Your task to perform on an android device: Look up the top rated 18v miter saw on Home Depot. Image 0: 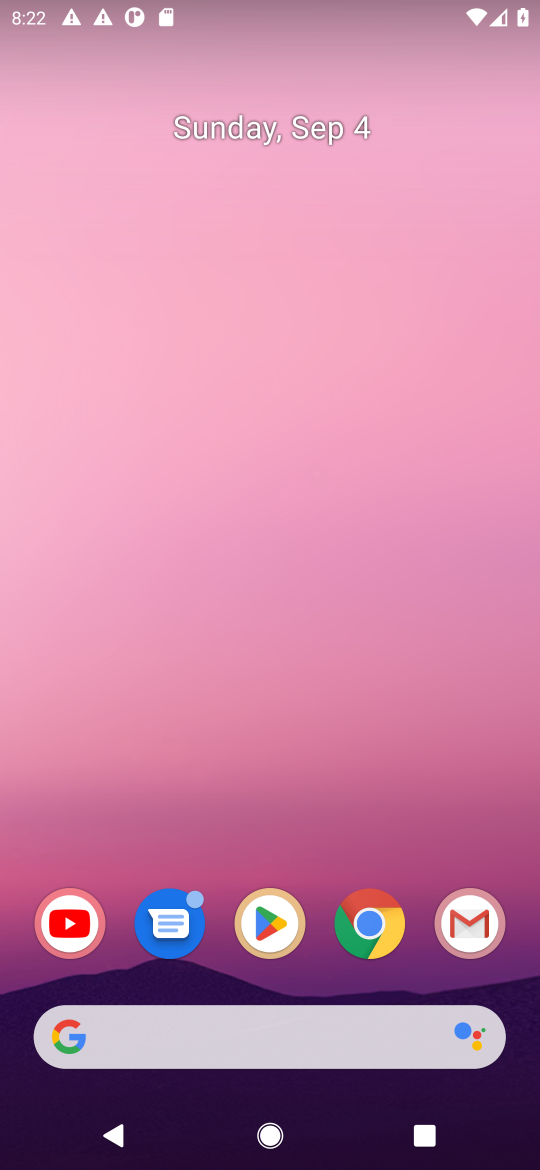
Step 0: click (359, 927)
Your task to perform on an android device: Look up the top rated 18v miter saw on Home Depot. Image 1: 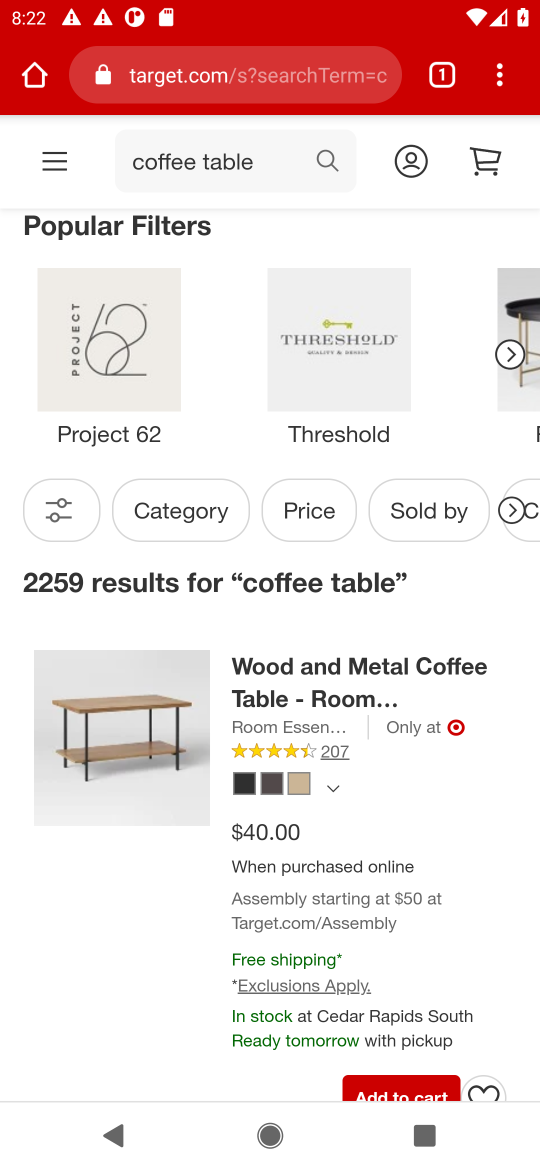
Step 1: click (248, 76)
Your task to perform on an android device: Look up the top rated 18v miter saw on Home Depot. Image 2: 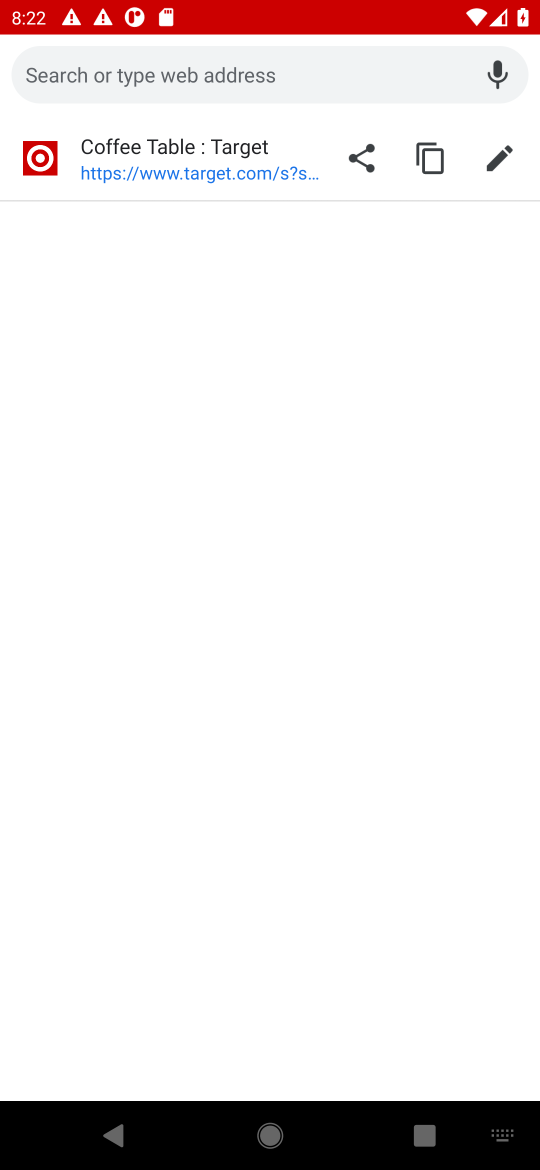
Step 2: type "home depot"
Your task to perform on an android device: Look up the top rated 18v miter saw on Home Depot. Image 3: 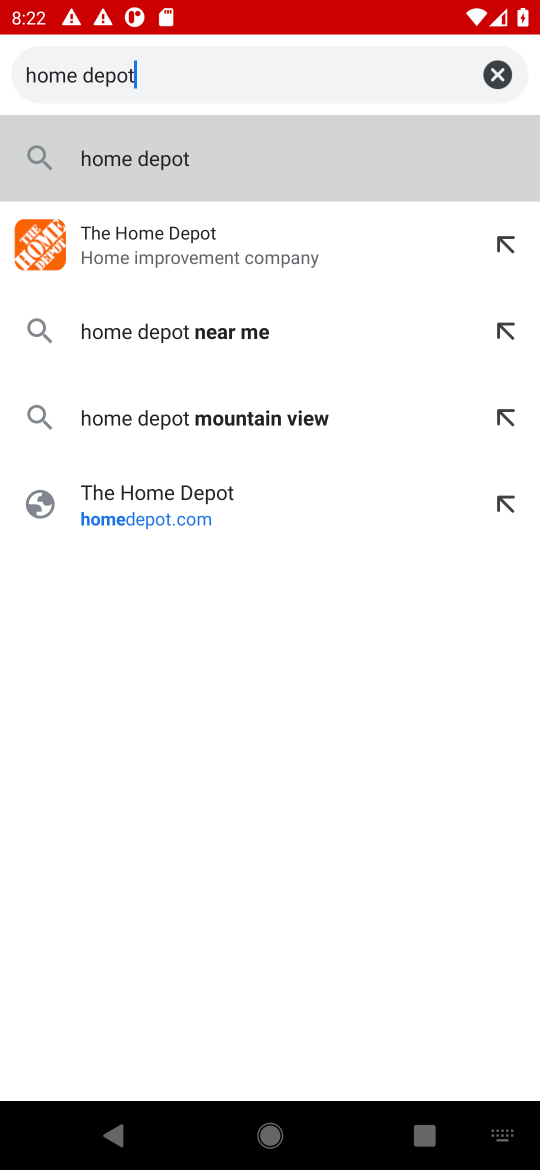
Step 3: click (328, 248)
Your task to perform on an android device: Look up the top rated 18v miter saw on Home Depot. Image 4: 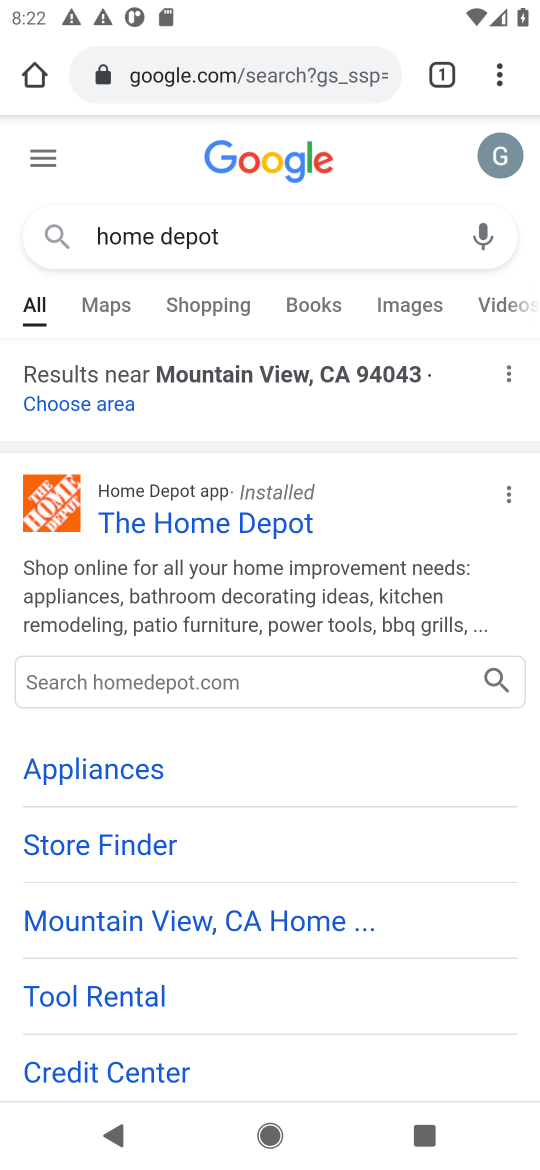
Step 4: click (178, 519)
Your task to perform on an android device: Look up the top rated 18v miter saw on Home Depot. Image 5: 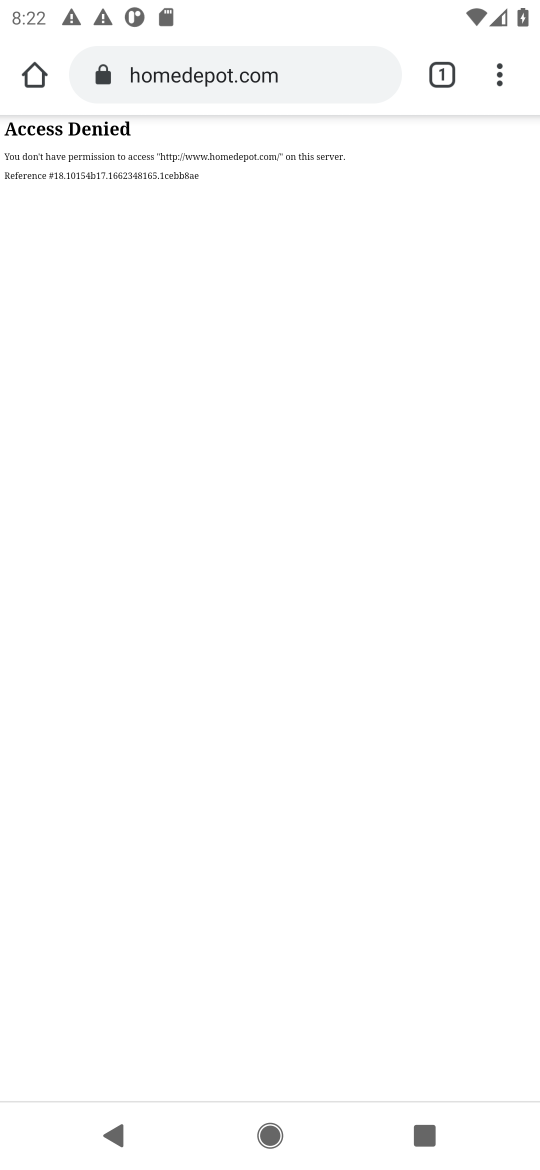
Step 5: task complete